Your task to perform on an android device: Open battery settings Image 0: 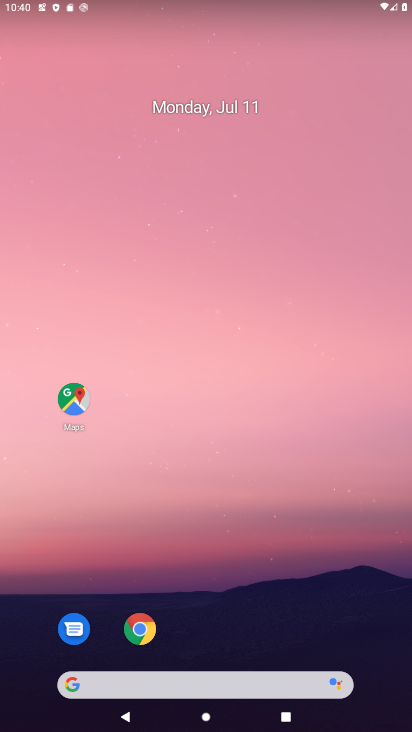
Step 0: drag from (221, 636) to (228, 178)
Your task to perform on an android device: Open battery settings Image 1: 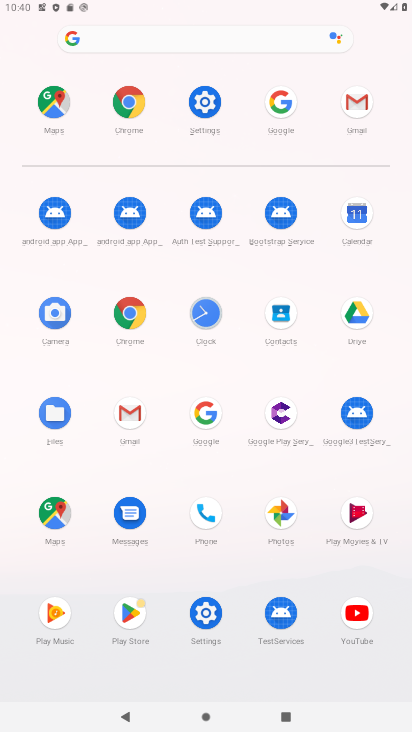
Step 1: click (194, 114)
Your task to perform on an android device: Open battery settings Image 2: 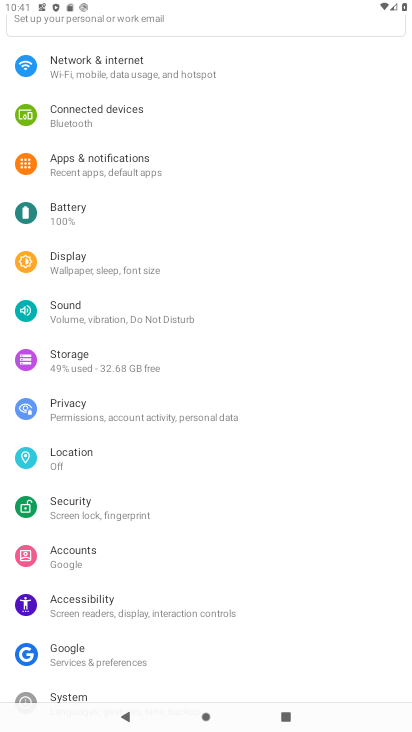
Step 2: click (175, 215)
Your task to perform on an android device: Open battery settings Image 3: 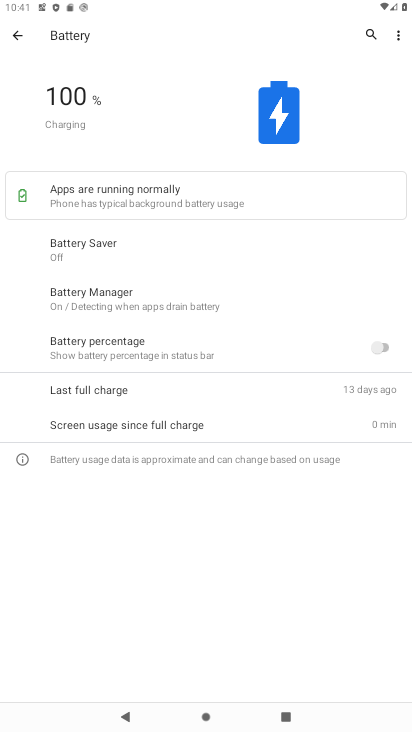
Step 3: click (397, 33)
Your task to perform on an android device: Open battery settings Image 4: 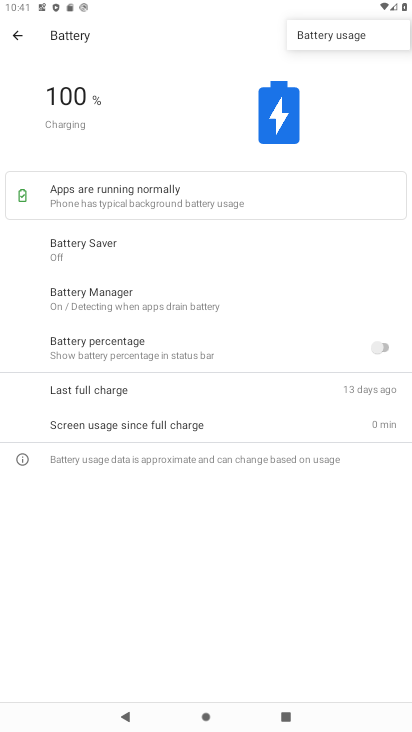
Step 4: task complete